Your task to perform on an android device: turn off notifications settings in the gmail app Image 0: 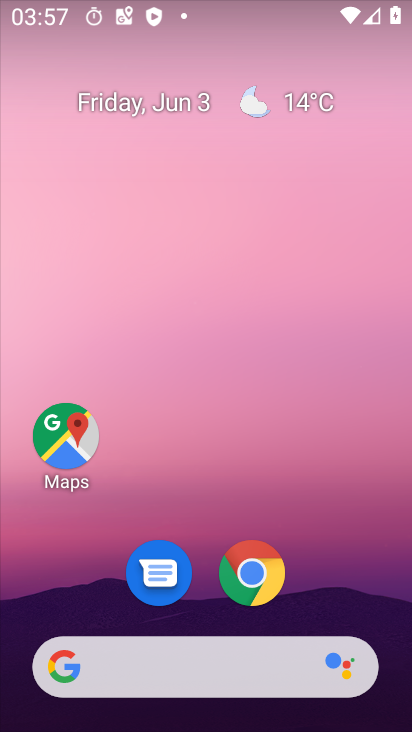
Step 0: drag from (263, 545) to (317, 36)
Your task to perform on an android device: turn off notifications settings in the gmail app Image 1: 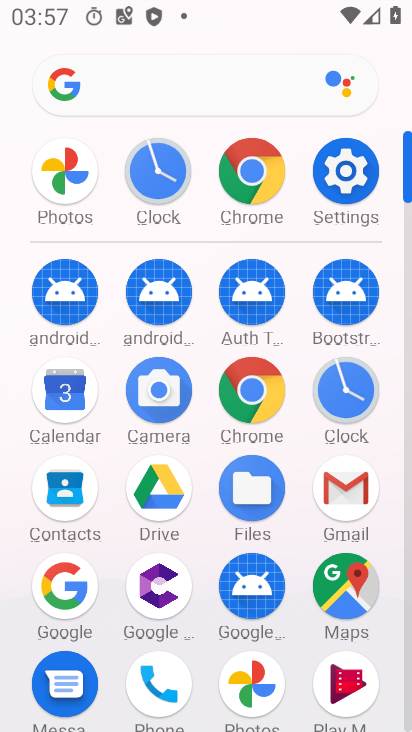
Step 1: click (353, 492)
Your task to perform on an android device: turn off notifications settings in the gmail app Image 2: 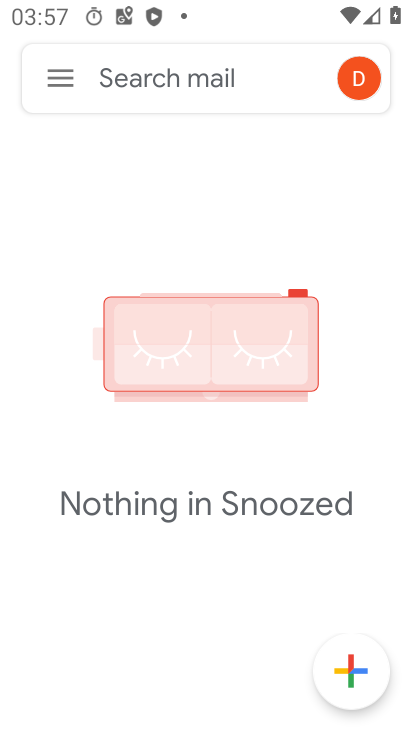
Step 2: click (62, 88)
Your task to perform on an android device: turn off notifications settings in the gmail app Image 3: 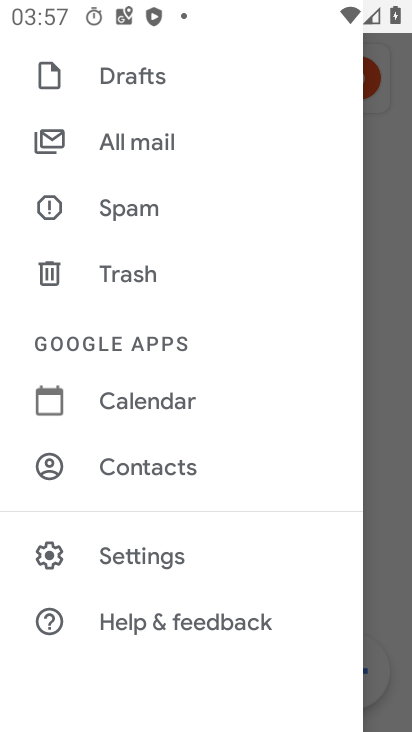
Step 3: click (154, 561)
Your task to perform on an android device: turn off notifications settings in the gmail app Image 4: 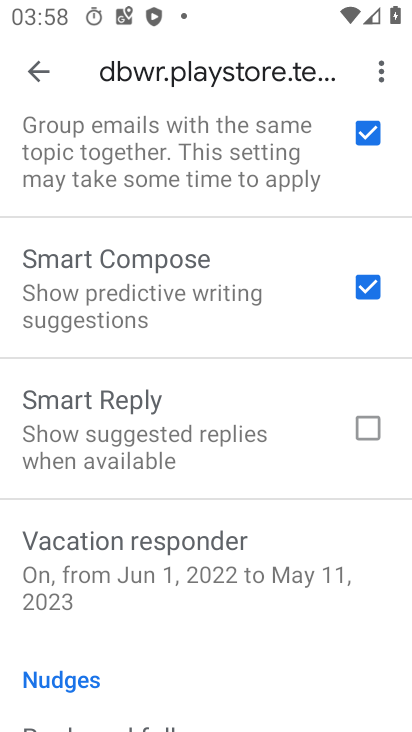
Step 4: drag from (151, 237) to (193, 729)
Your task to perform on an android device: turn off notifications settings in the gmail app Image 5: 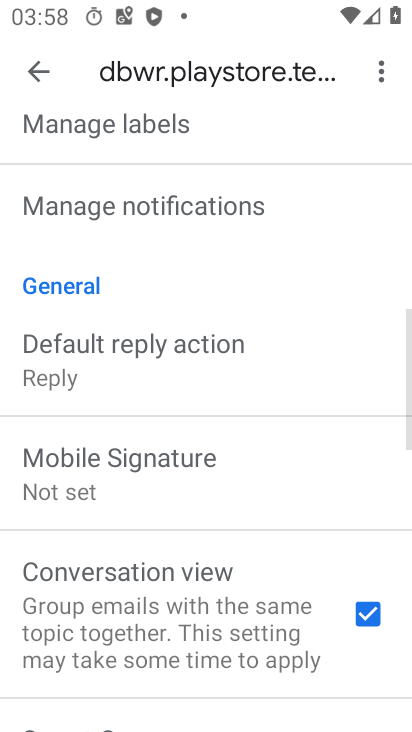
Step 5: click (168, 211)
Your task to perform on an android device: turn off notifications settings in the gmail app Image 6: 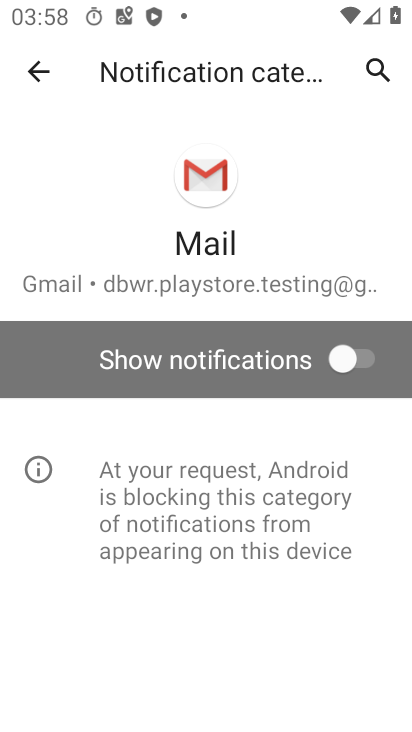
Step 6: task complete